Your task to perform on an android device: Open the calendar app, open the side menu, and click the "Day" option Image 0: 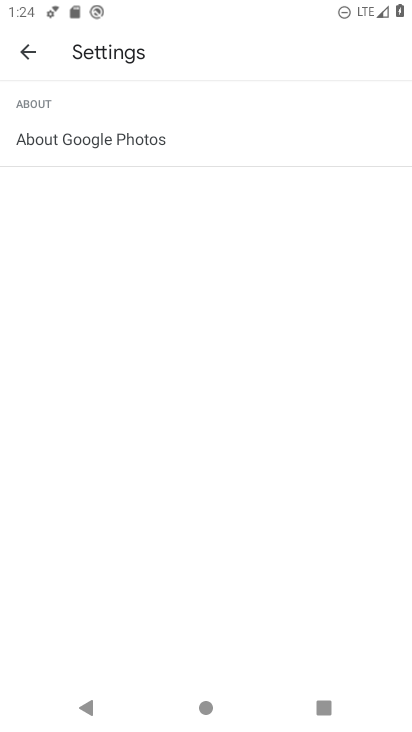
Step 0: press home button
Your task to perform on an android device: Open the calendar app, open the side menu, and click the "Day" option Image 1: 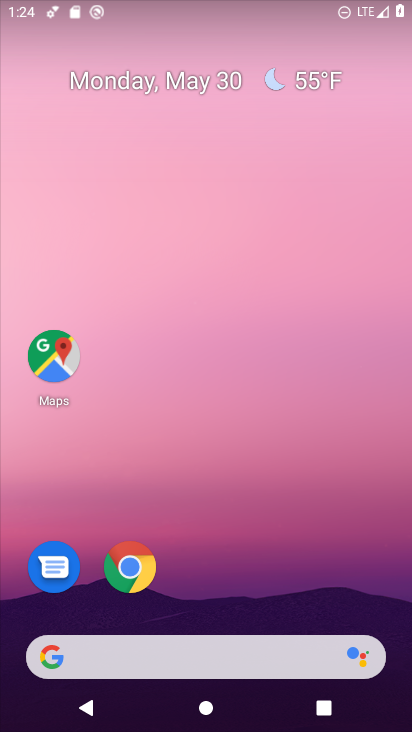
Step 1: drag from (195, 602) to (230, 1)
Your task to perform on an android device: Open the calendar app, open the side menu, and click the "Day" option Image 2: 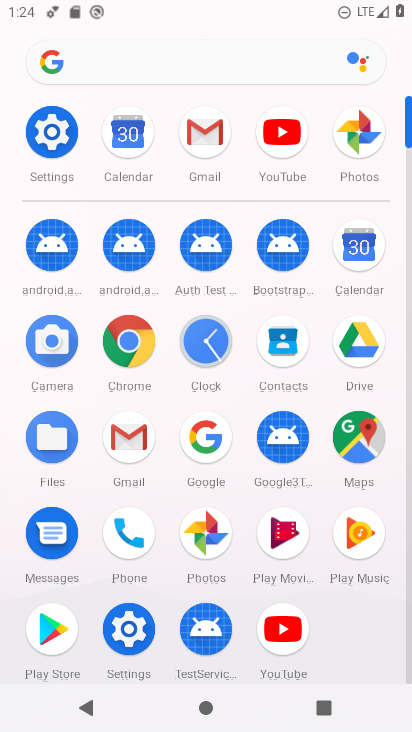
Step 2: click (360, 243)
Your task to perform on an android device: Open the calendar app, open the side menu, and click the "Day" option Image 3: 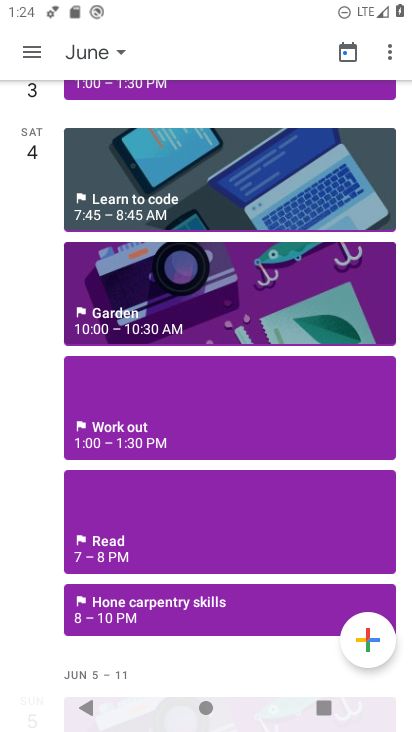
Step 3: click (35, 47)
Your task to perform on an android device: Open the calendar app, open the side menu, and click the "Day" option Image 4: 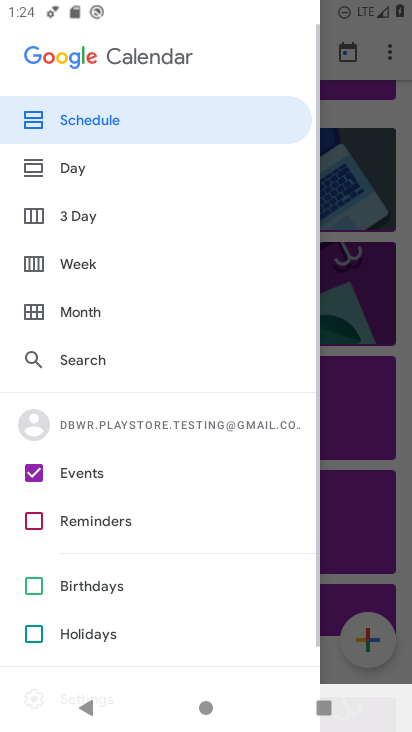
Step 4: click (52, 166)
Your task to perform on an android device: Open the calendar app, open the side menu, and click the "Day" option Image 5: 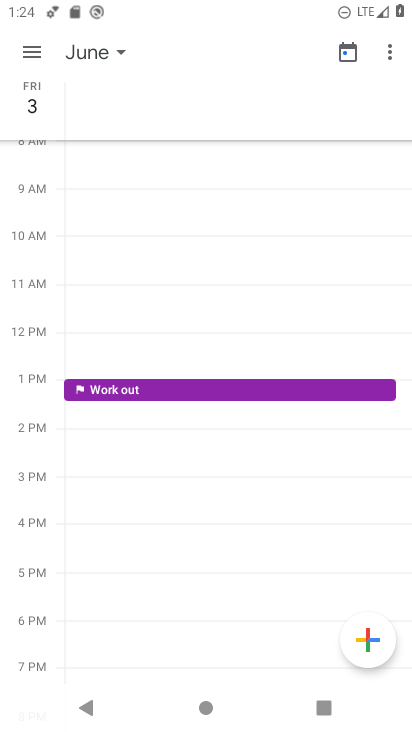
Step 5: task complete